Your task to perform on an android device: open device folders in google photos Image 0: 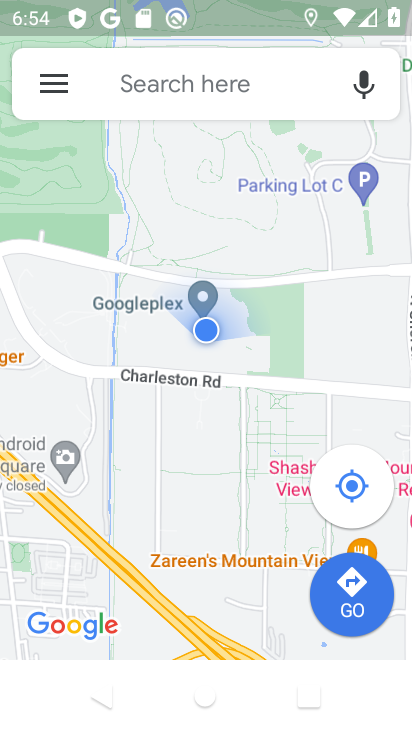
Step 0: press home button
Your task to perform on an android device: open device folders in google photos Image 1: 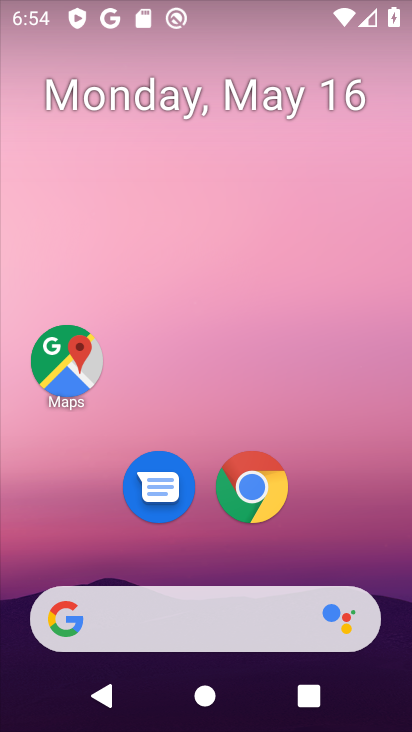
Step 1: drag from (359, 556) to (309, 0)
Your task to perform on an android device: open device folders in google photos Image 2: 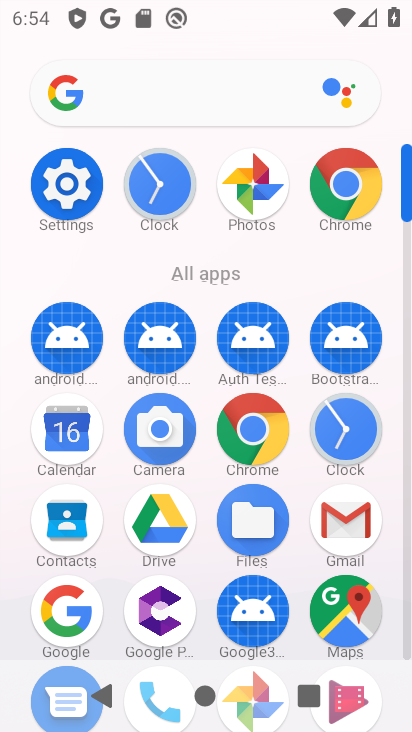
Step 2: click (268, 166)
Your task to perform on an android device: open device folders in google photos Image 3: 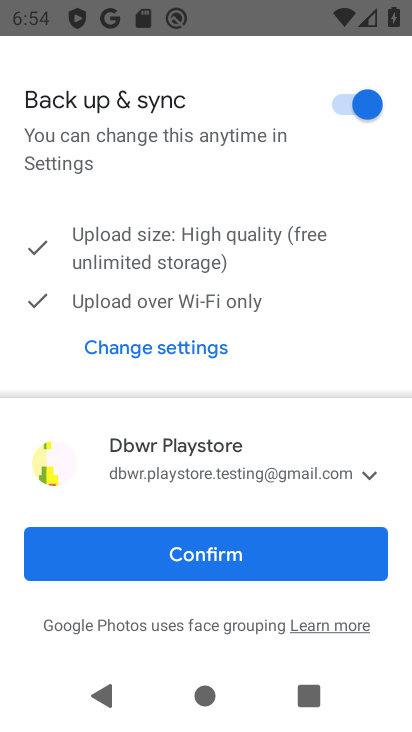
Step 3: click (251, 557)
Your task to perform on an android device: open device folders in google photos Image 4: 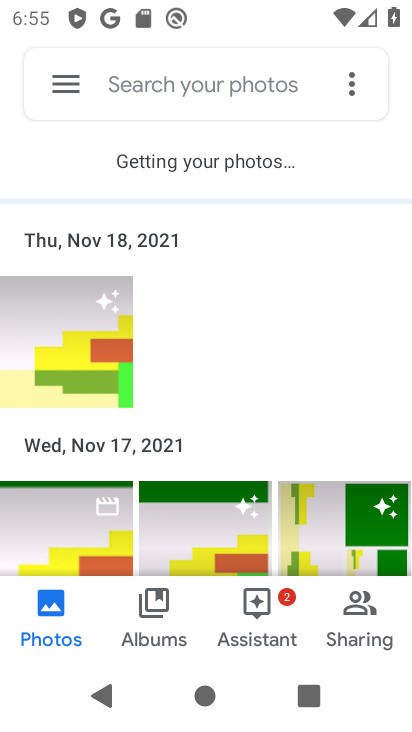
Step 4: click (59, 104)
Your task to perform on an android device: open device folders in google photos Image 5: 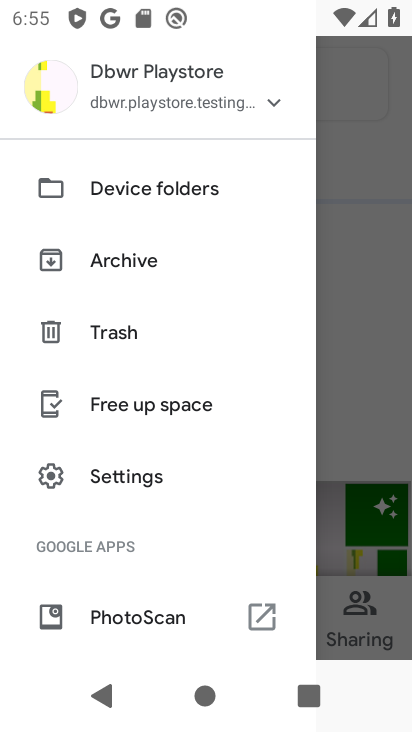
Step 5: click (166, 180)
Your task to perform on an android device: open device folders in google photos Image 6: 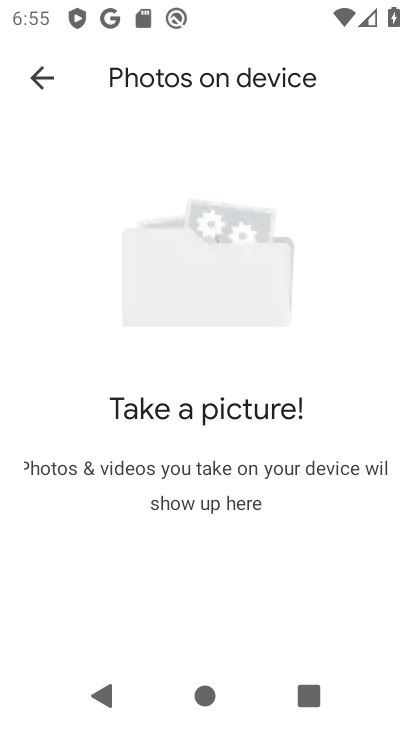
Step 6: task complete